Your task to perform on an android device: turn on sleep mode Image 0: 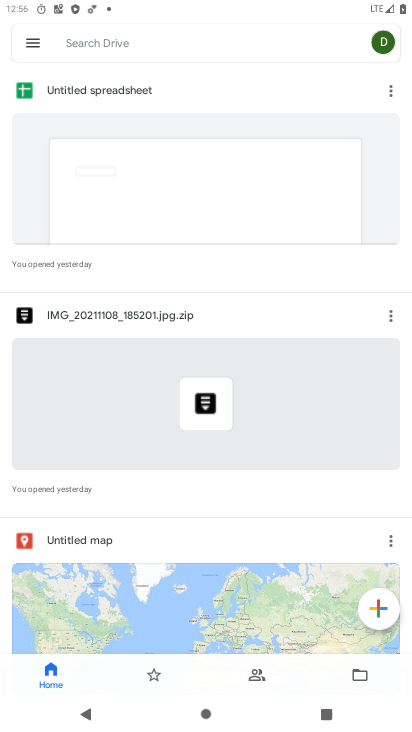
Step 0: press home button
Your task to perform on an android device: turn on sleep mode Image 1: 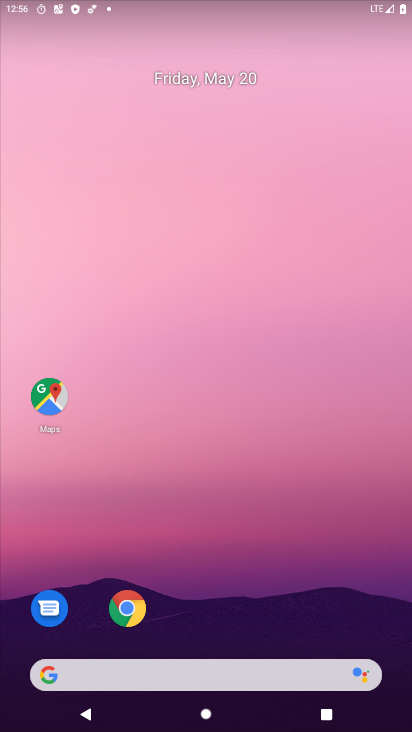
Step 1: drag from (377, 625) to (379, 85)
Your task to perform on an android device: turn on sleep mode Image 2: 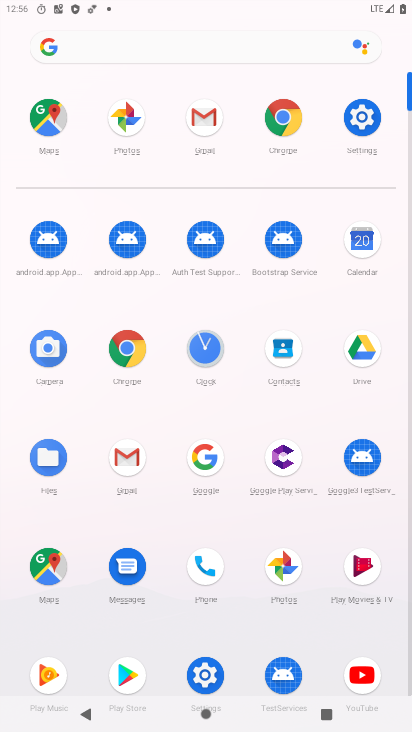
Step 2: click (370, 112)
Your task to perform on an android device: turn on sleep mode Image 3: 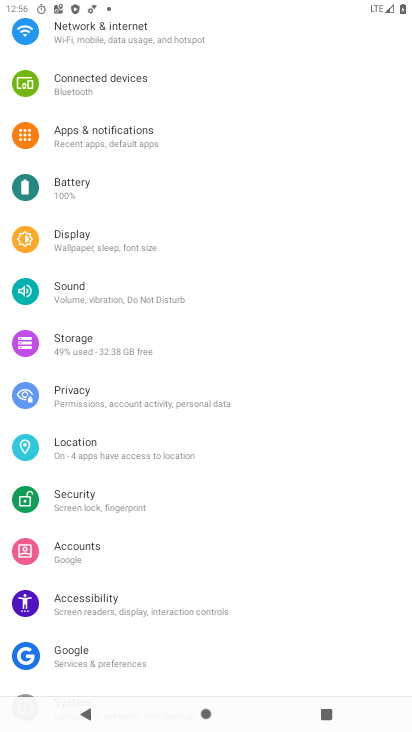
Step 3: drag from (307, 135) to (305, 543)
Your task to perform on an android device: turn on sleep mode Image 4: 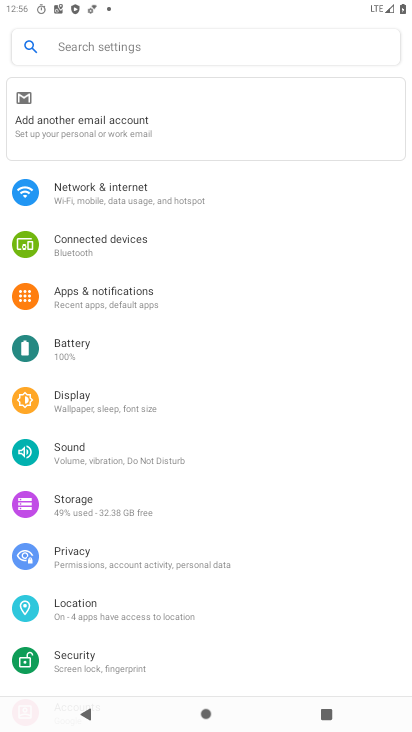
Step 4: click (209, 42)
Your task to perform on an android device: turn on sleep mode Image 5: 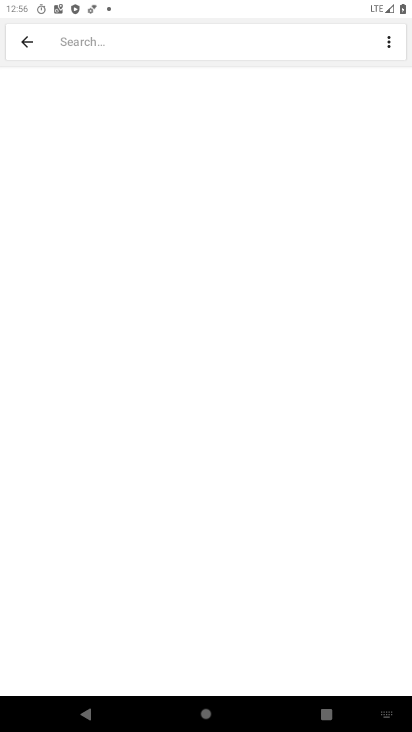
Step 5: type ""
Your task to perform on an android device: turn on sleep mode Image 6: 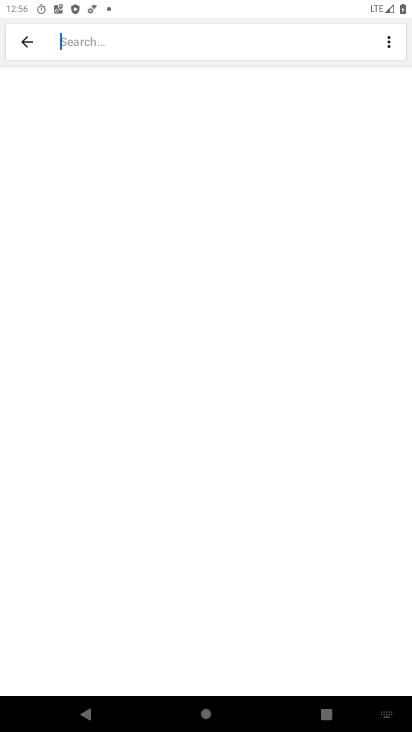
Step 6: type "sleep mode"
Your task to perform on an android device: turn on sleep mode Image 7: 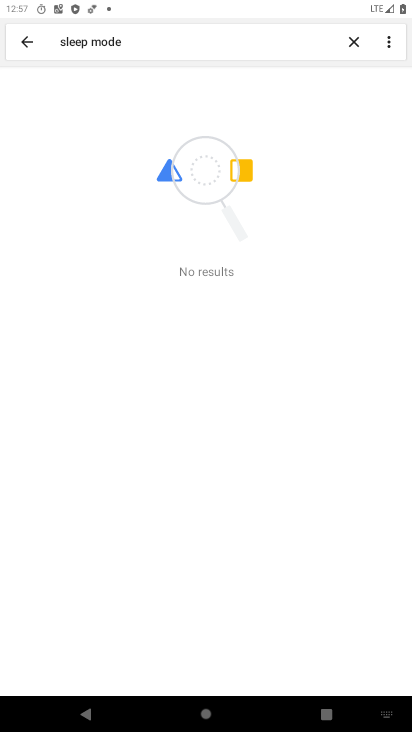
Step 7: task complete